Your task to perform on an android device: change your default location settings in chrome Image 0: 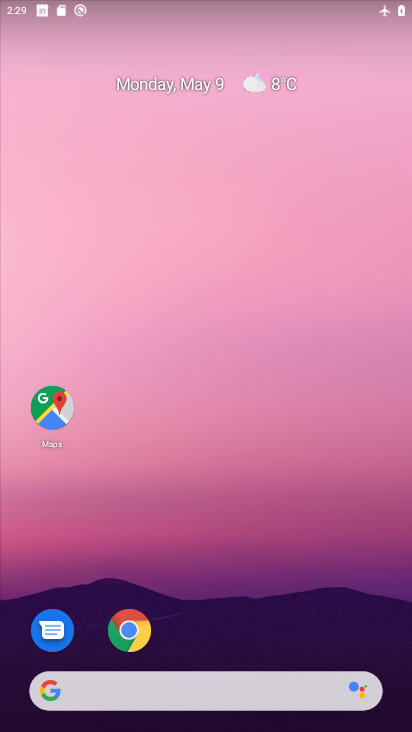
Step 0: click (137, 623)
Your task to perform on an android device: change your default location settings in chrome Image 1: 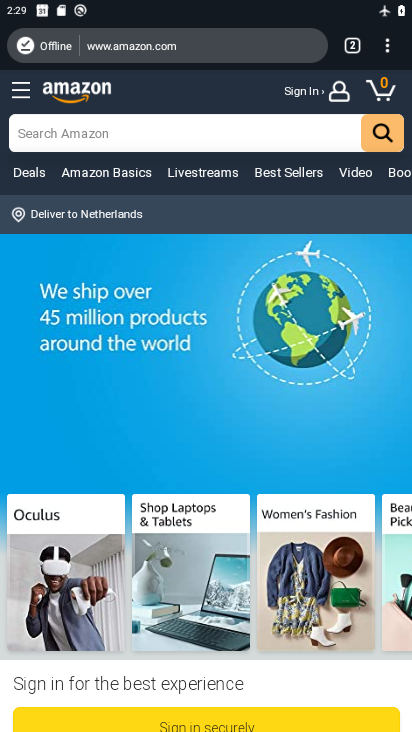
Step 1: click (390, 54)
Your task to perform on an android device: change your default location settings in chrome Image 2: 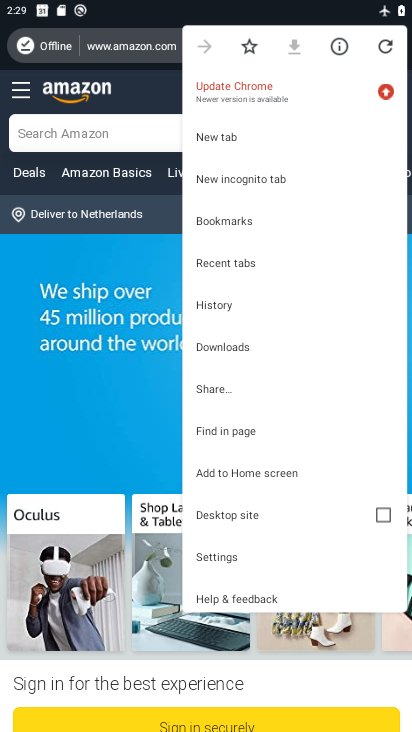
Step 2: click (229, 552)
Your task to perform on an android device: change your default location settings in chrome Image 3: 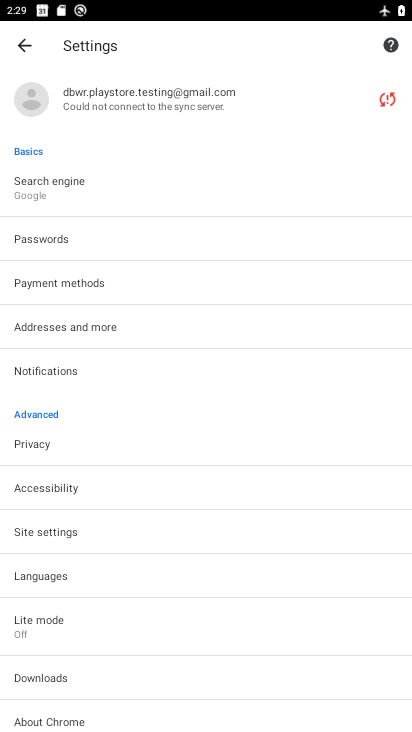
Step 3: click (74, 529)
Your task to perform on an android device: change your default location settings in chrome Image 4: 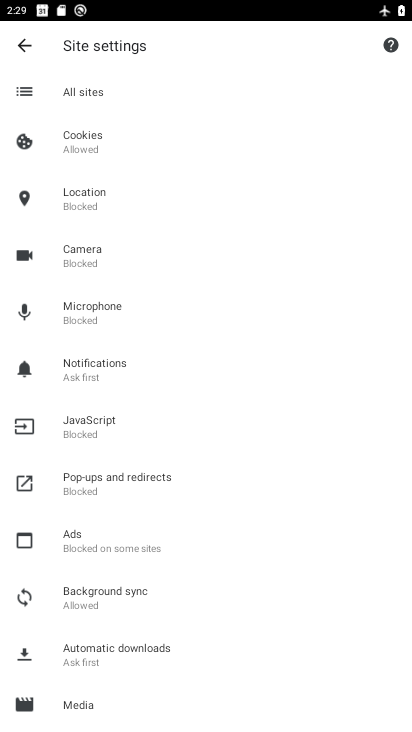
Step 4: click (108, 205)
Your task to perform on an android device: change your default location settings in chrome Image 5: 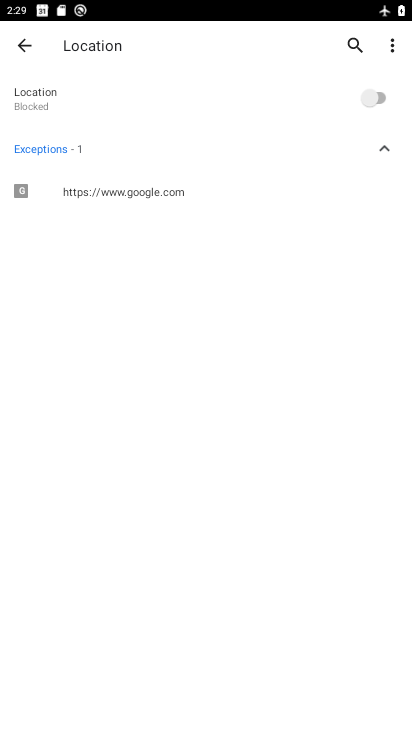
Step 5: click (345, 94)
Your task to perform on an android device: change your default location settings in chrome Image 6: 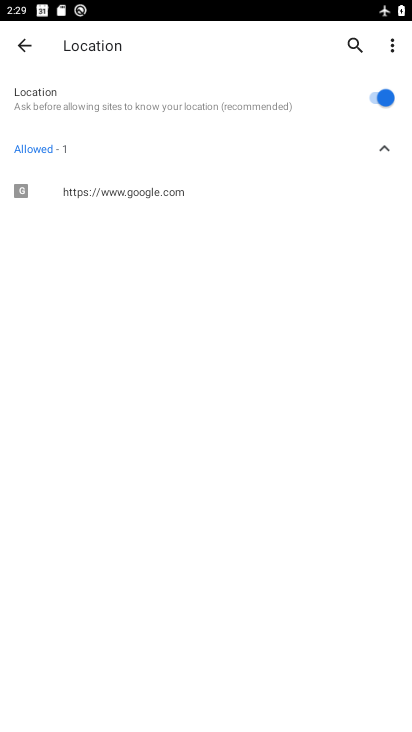
Step 6: task complete